Your task to perform on an android device: open app "Spotify: Music and Podcasts" (install if not already installed) Image 0: 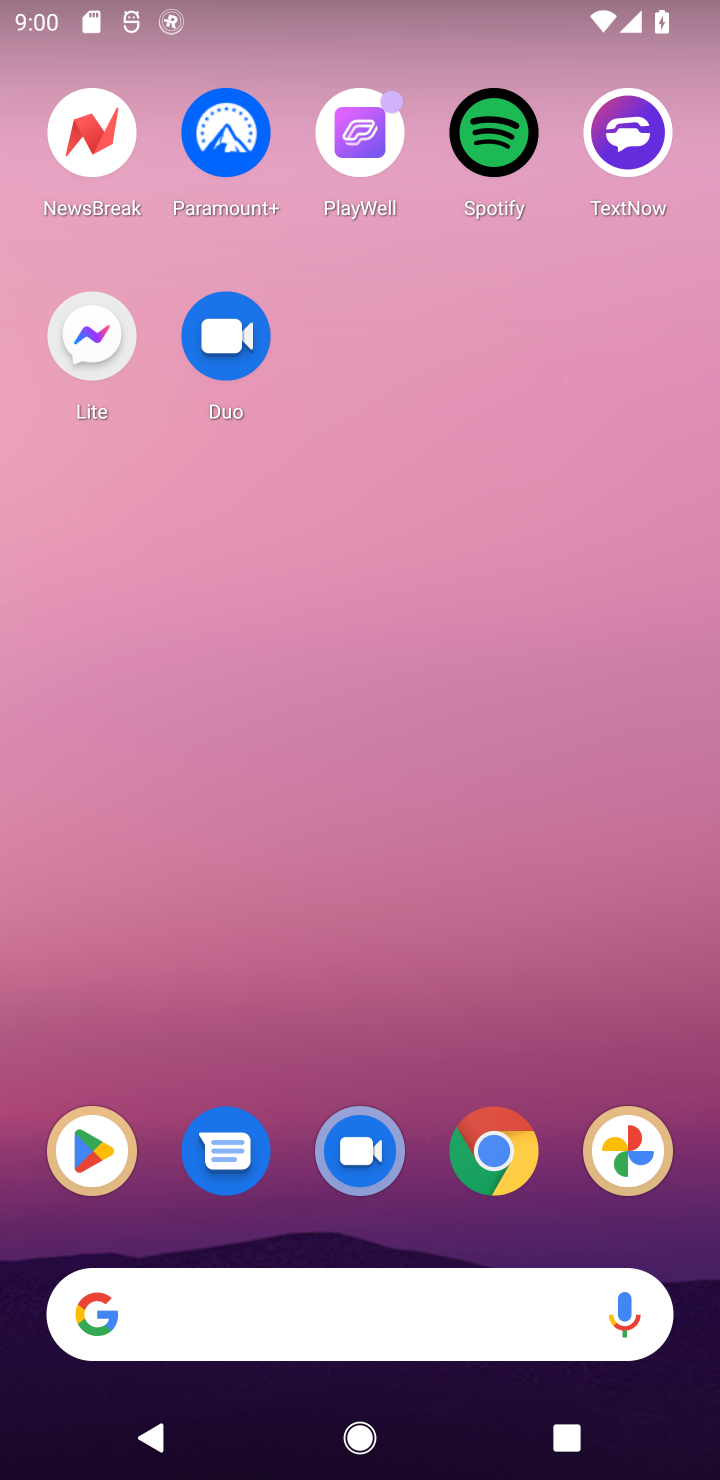
Step 0: click (85, 1156)
Your task to perform on an android device: open app "Spotify: Music and Podcasts" (install if not already installed) Image 1: 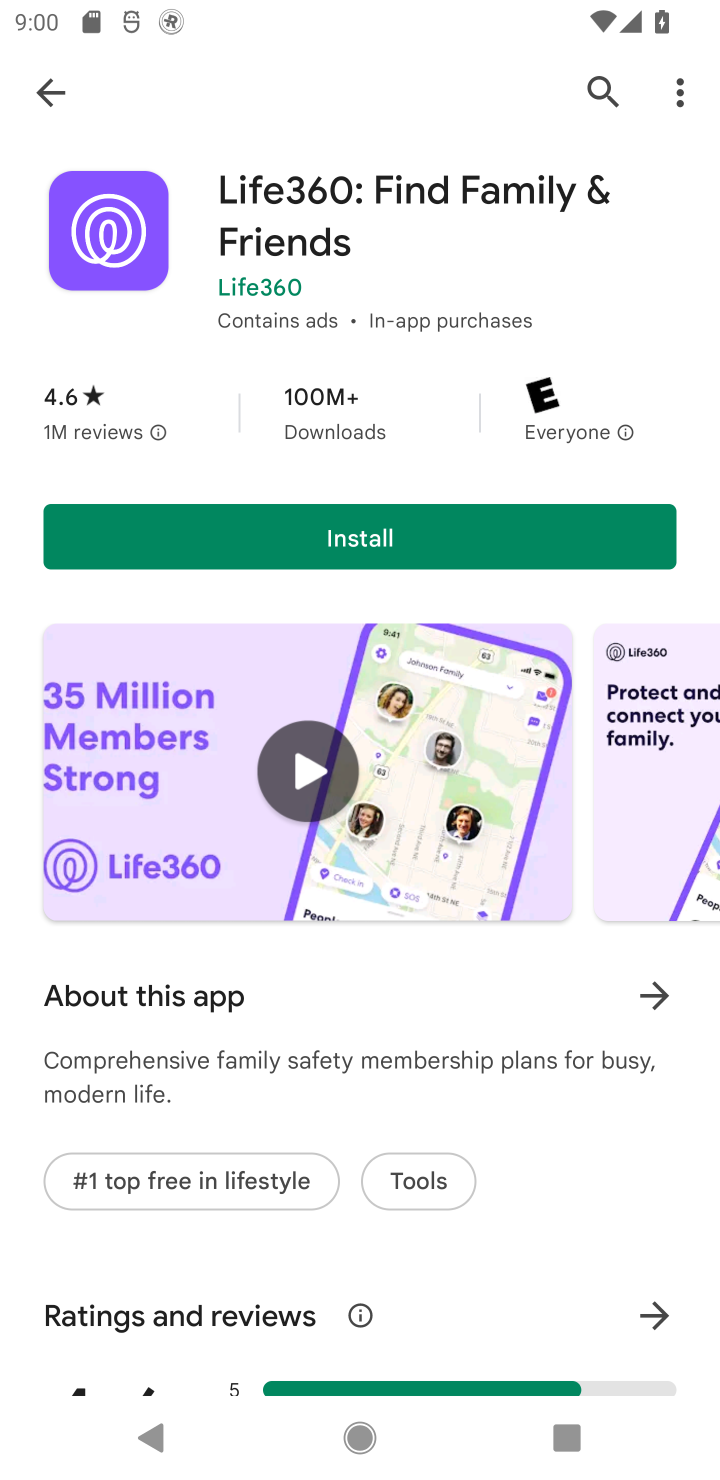
Step 1: click (668, 96)
Your task to perform on an android device: open app "Spotify: Music and Podcasts" (install if not already installed) Image 2: 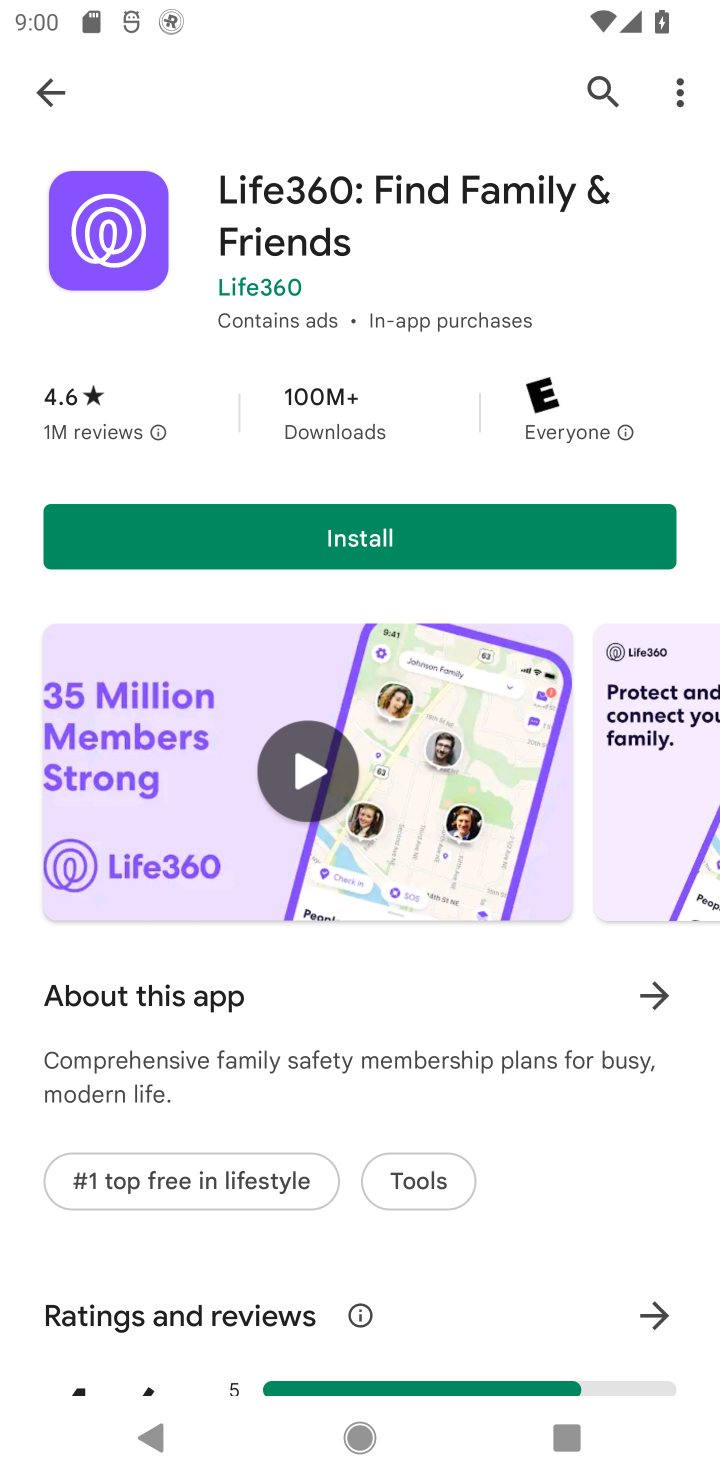
Step 2: click (607, 106)
Your task to perform on an android device: open app "Spotify: Music and Podcasts" (install if not already installed) Image 3: 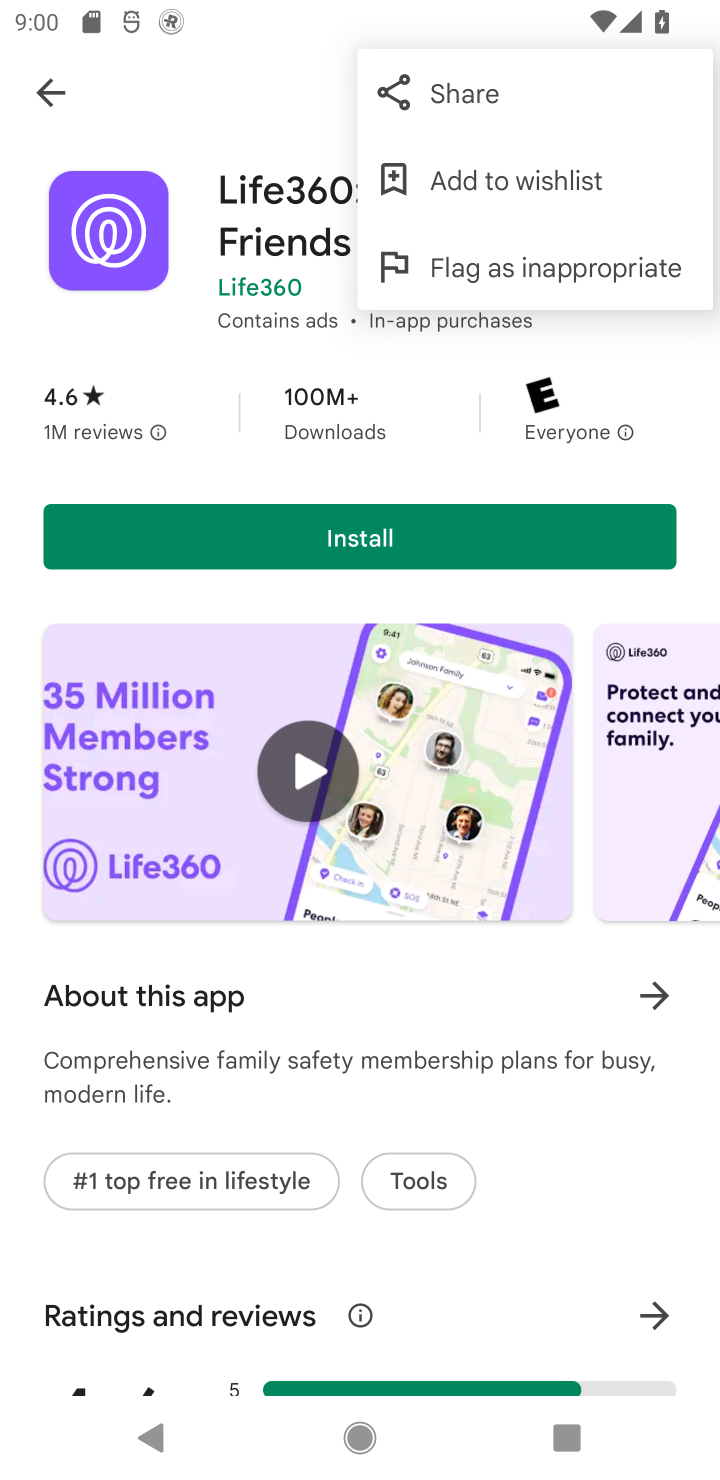
Step 3: click (143, 124)
Your task to perform on an android device: open app "Spotify: Music and Podcasts" (install if not already installed) Image 4: 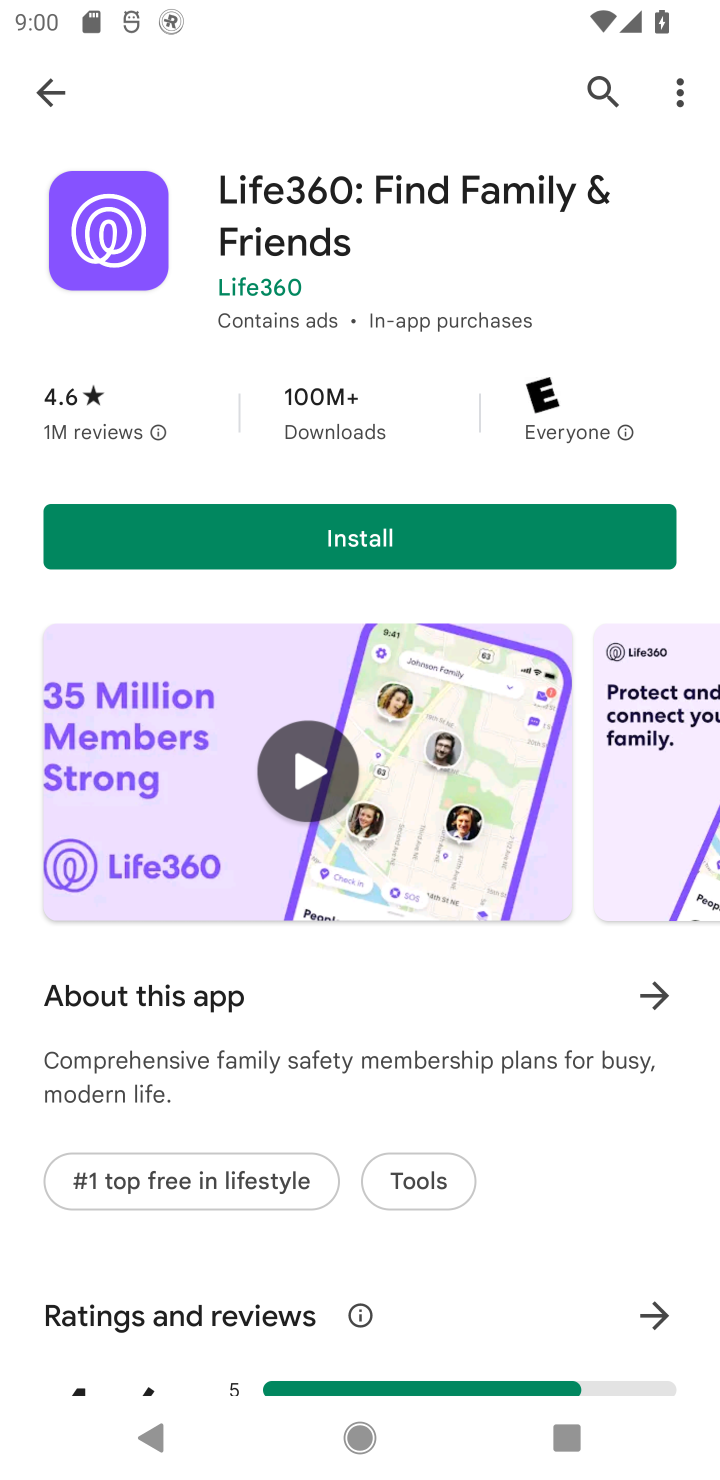
Step 4: click (580, 79)
Your task to perform on an android device: open app "Spotify: Music and Podcasts" (install if not already installed) Image 5: 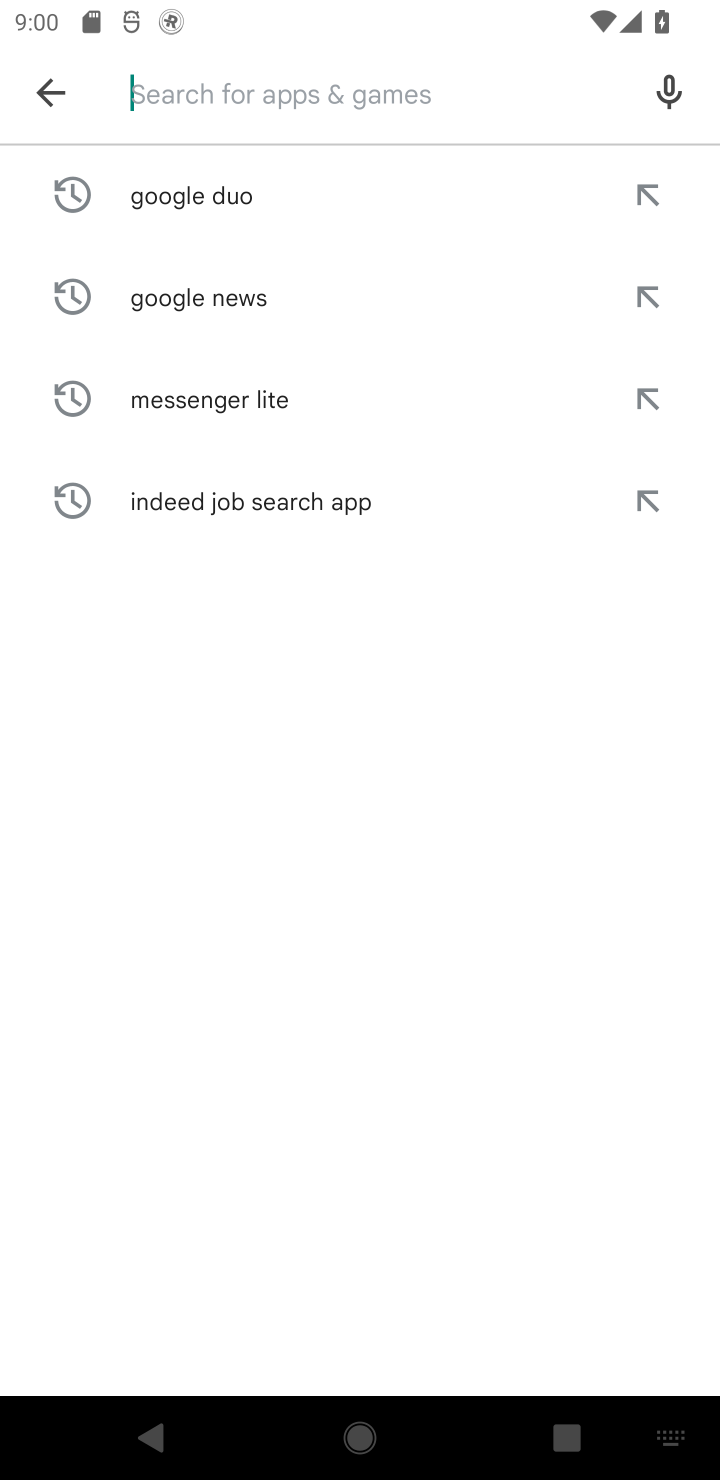
Step 5: drag from (667, 1433) to (675, 1321)
Your task to perform on an android device: open app "Spotify: Music and Podcasts" (install if not already installed) Image 6: 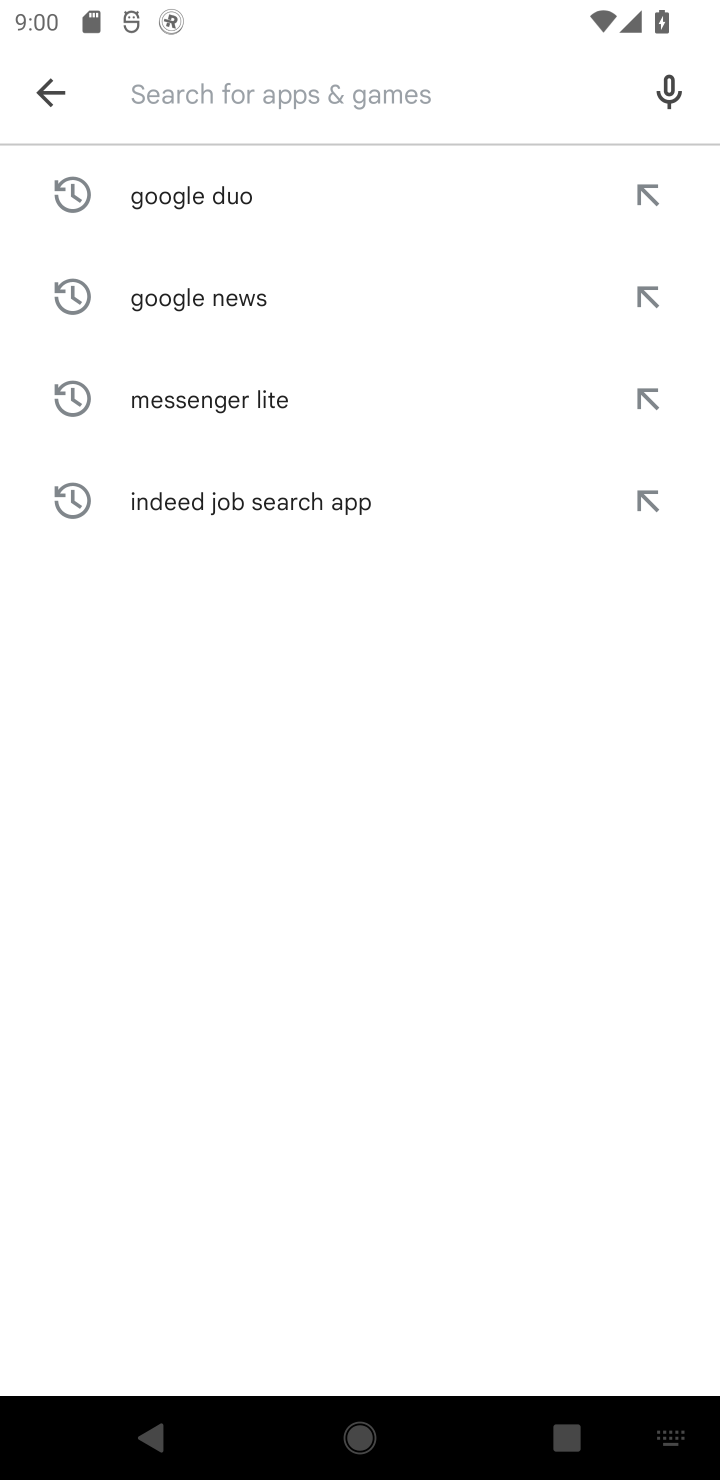
Step 6: type "Spotify: Music and Podcasts"
Your task to perform on an android device: open app "Spotify: Music and Podcasts" (install if not already installed) Image 7: 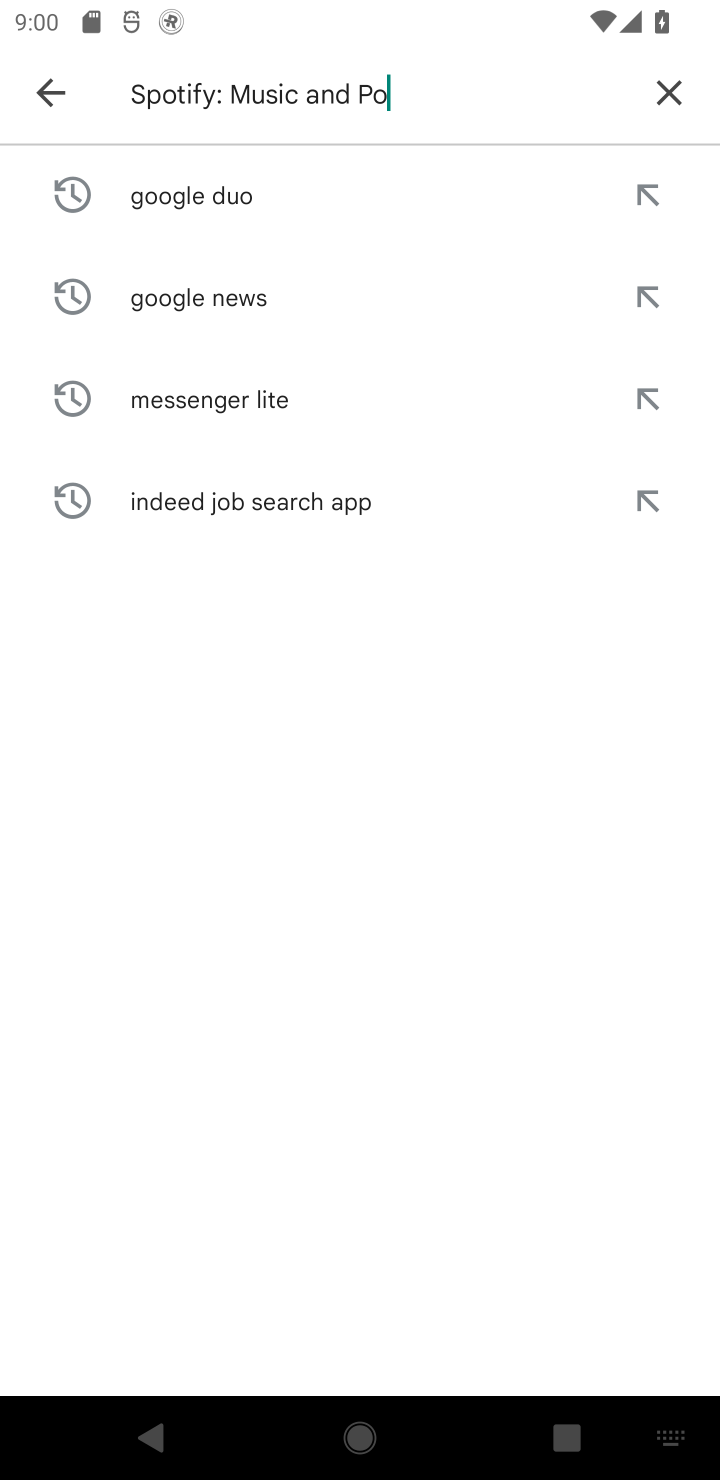
Step 7: type ""
Your task to perform on an android device: open app "Spotify: Music and Podcasts" (install if not already installed) Image 8: 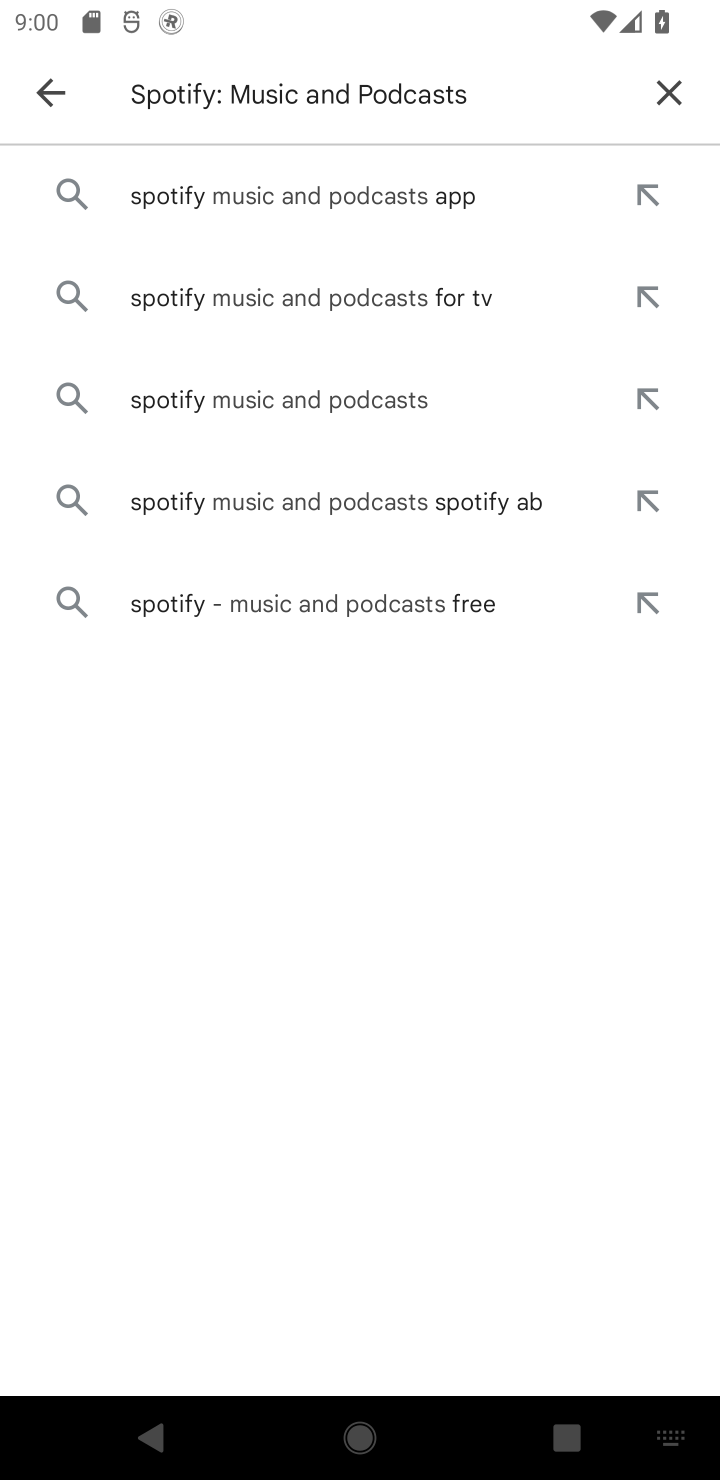
Step 8: click (333, 172)
Your task to perform on an android device: open app "Spotify: Music and Podcasts" (install if not already installed) Image 9: 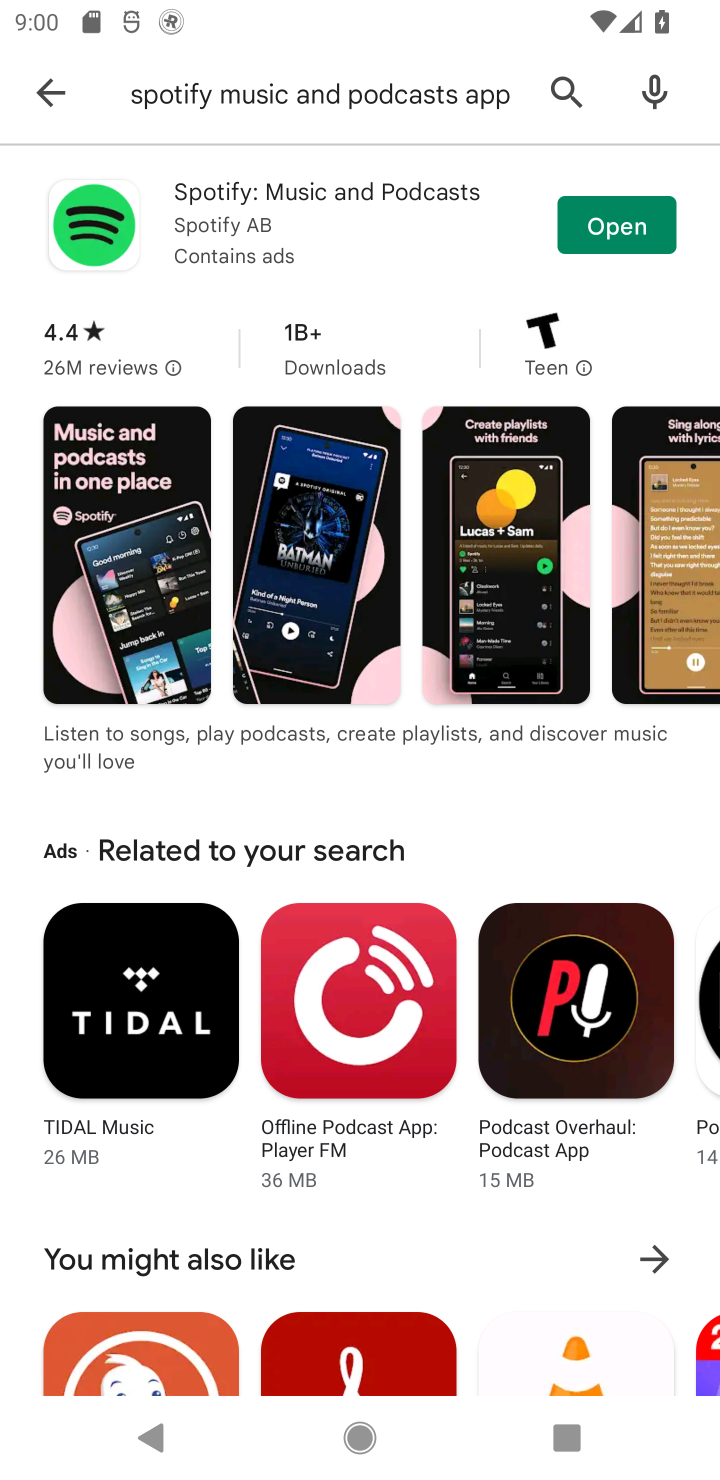
Step 9: click (644, 216)
Your task to perform on an android device: open app "Spotify: Music and Podcasts" (install if not already installed) Image 10: 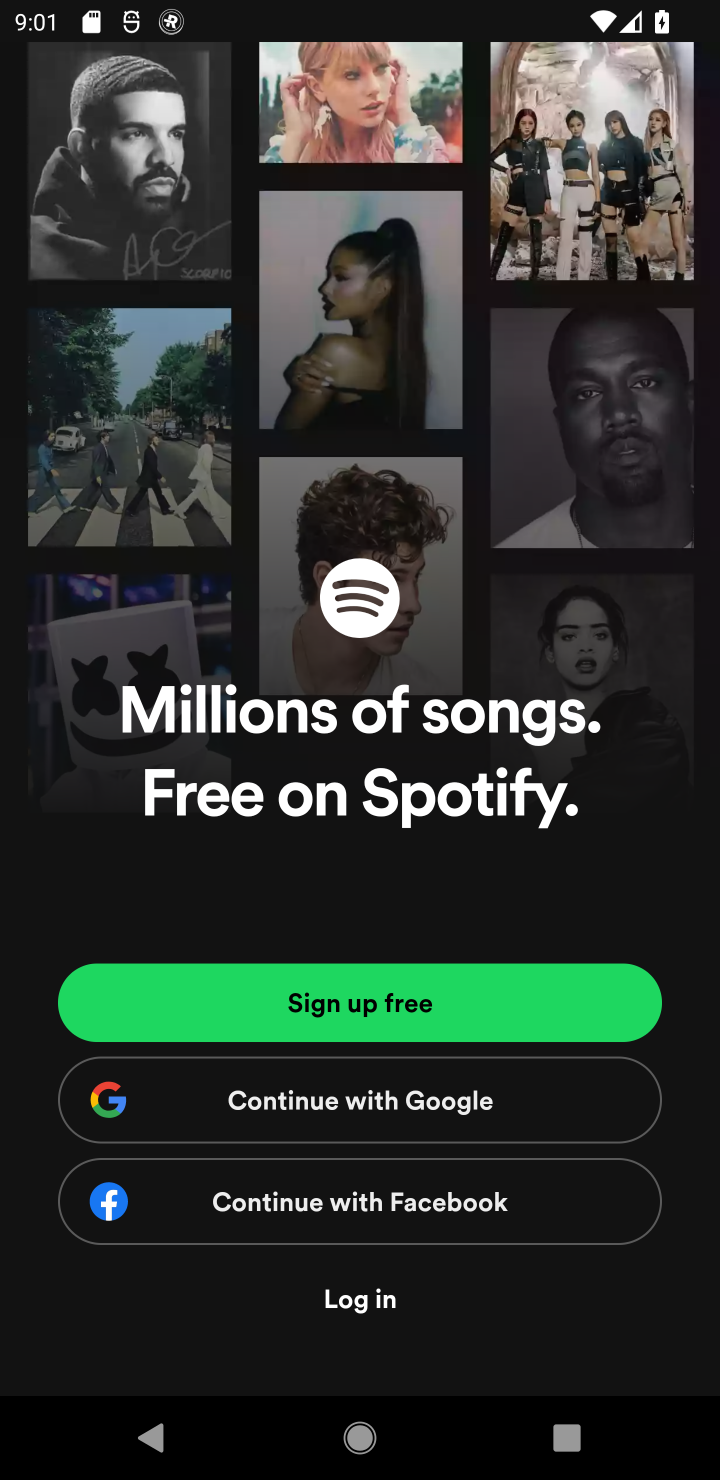
Step 10: task complete